Your task to perform on an android device: Open Chrome and go to the settings page Image 0: 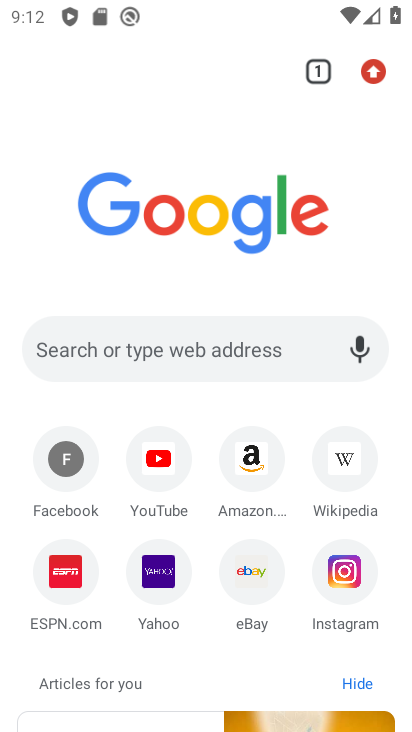
Step 0: drag from (400, 68) to (139, 569)
Your task to perform on an android device: Open Chrome and go to the settings page Image 1: 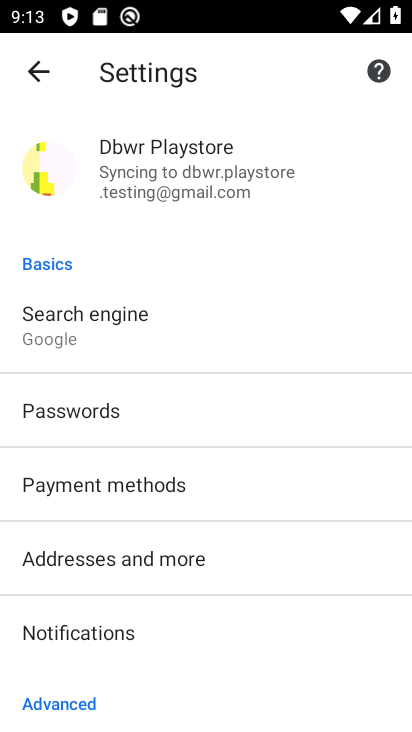
Step 1: task complete